Your task to perform on an android device: Open the Play Movies app and select the watchlist tab. Image 0: 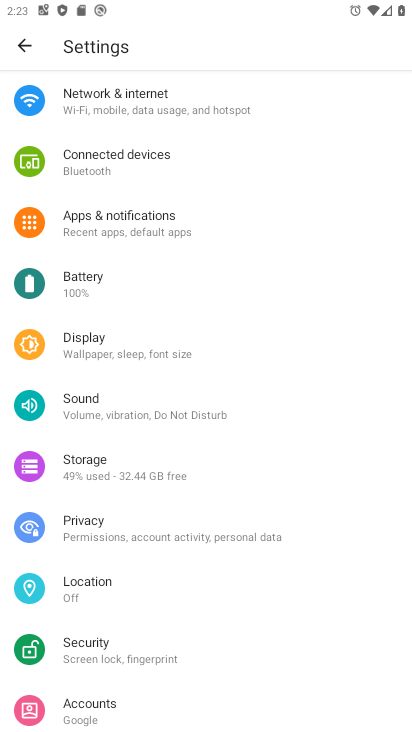
Step 0: press home button
Your task to perform on an android device: Open the Play Movies app and select the watchlist tab. Image 1: 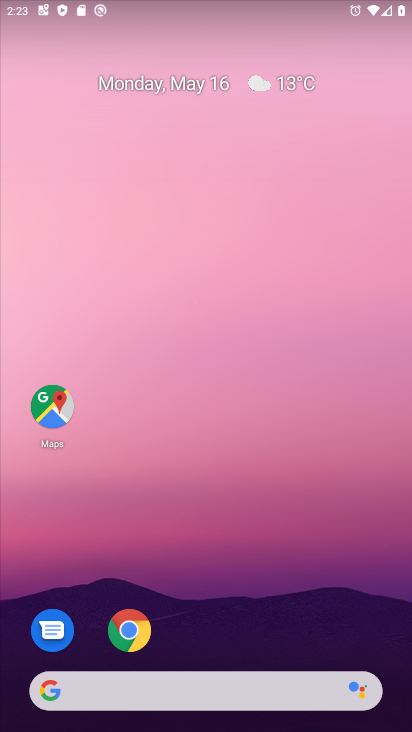
Step 1: drag from (243, 660) to (193, 345)
Your task to perform on an android device: Open the Play Movies app and select the watchlist tab. Image 2: 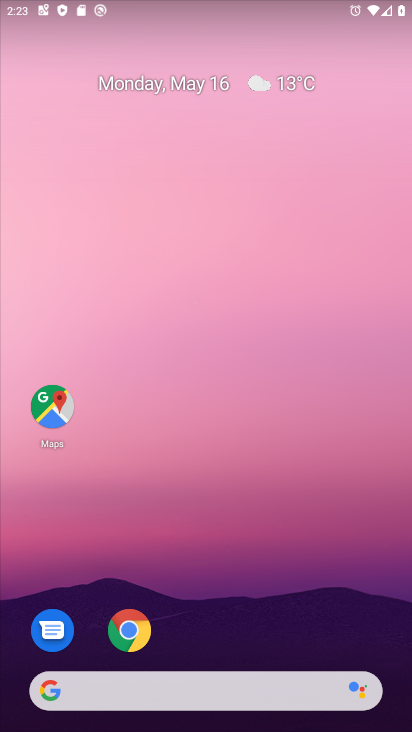
Step 2: drag from (234, 601) to (202, 82)
Your task to perform on an android device: Open the Play Movies app and select the watchlist tab. Image 3: 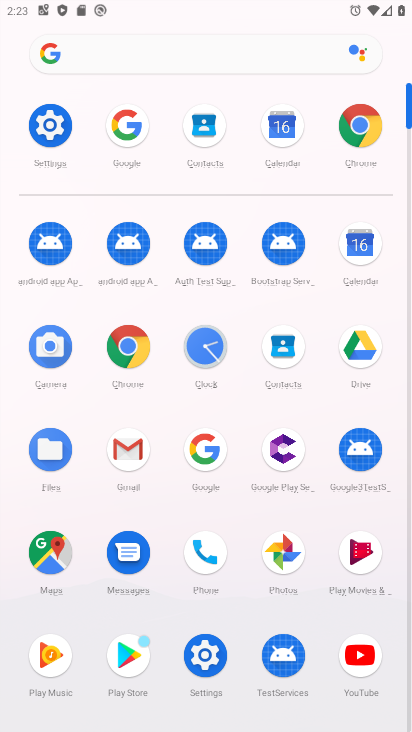
Step 3: click (371, 545)
Your task to perform on an android device: Open the Play Movies app and select the watchlist tab. Image 4: 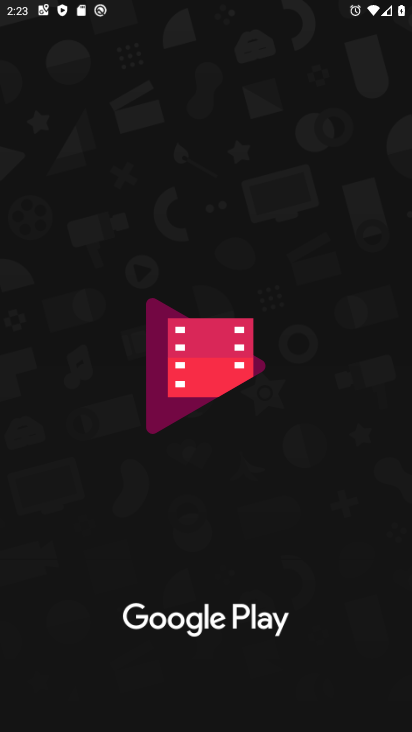
Step 4: click (277, 446)
Your task to perform on an android device: Open the Play Movies app and select the watchlist tab. Image 5: 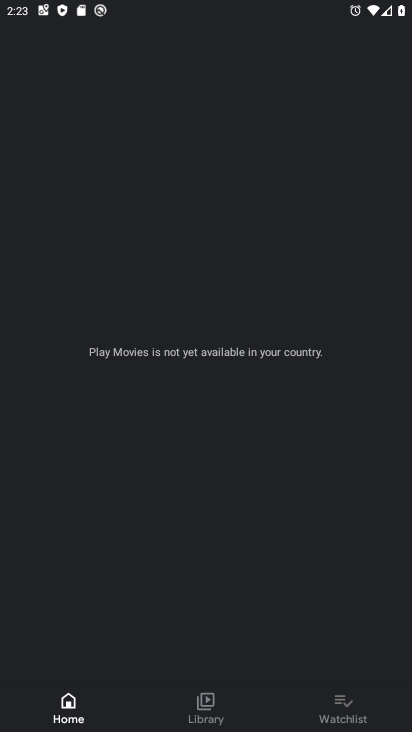
Step 5: click (355, 699)
Your task to perform on an android device: Open the Play Movies app and select the watchlist tab. Image 6: 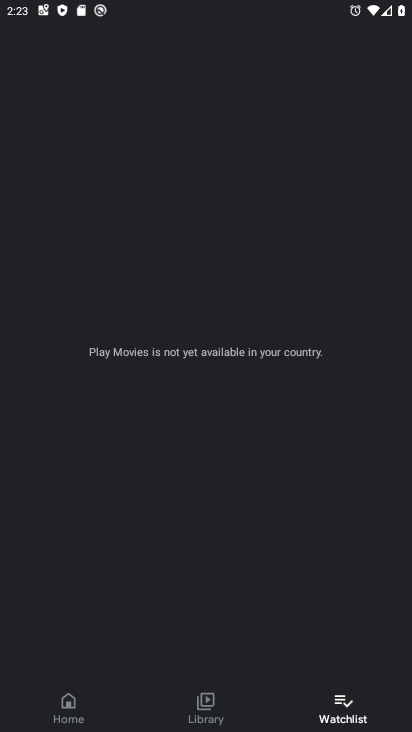
Step 6: click (356, 719)
Your task to perform on an android device: Open the Play Movies app and select the watchlist tab. Image 7: 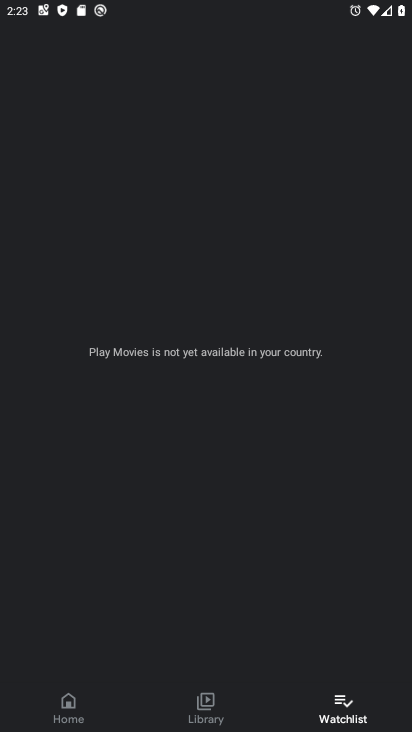
Step 7: task complete